Your task to perform on an android device: Open Wikipedia Image 0: 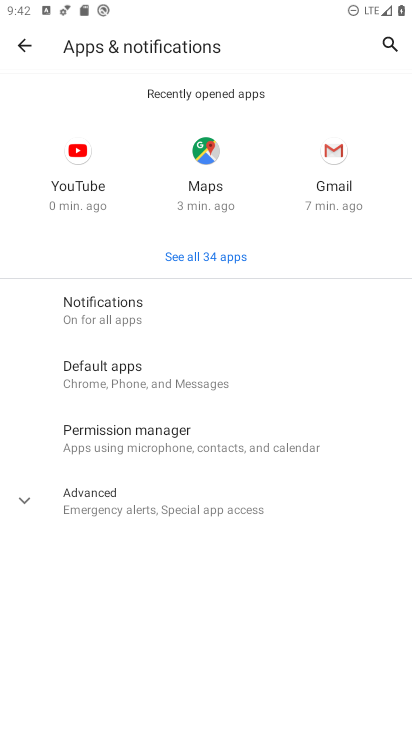
Step 0: press home button
Your task to perform on an android device: Open Wikipedia Image 1: 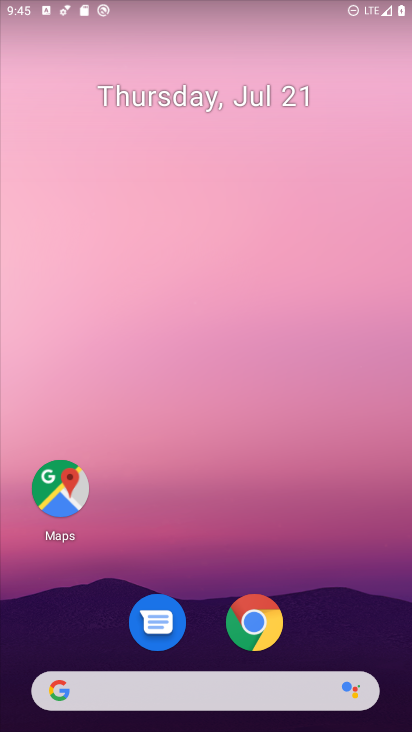
Step 1: click (123, 674)
Your task to perform on an android device: Open Wikipedia Image 2: 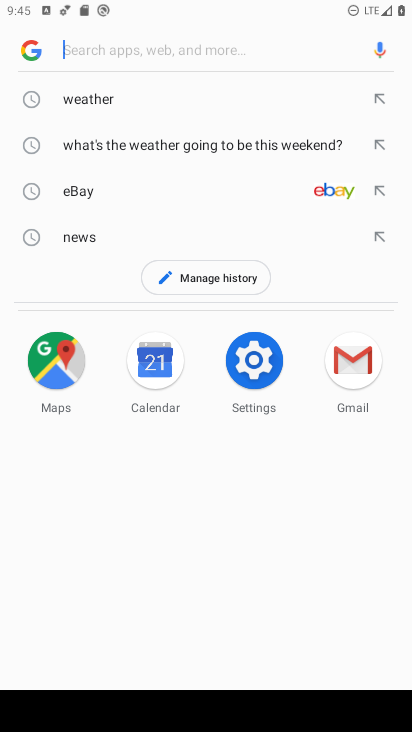
Step 2: type "wikipedia"
Your task to perform on an android device: Open Wikipedia Image 3: 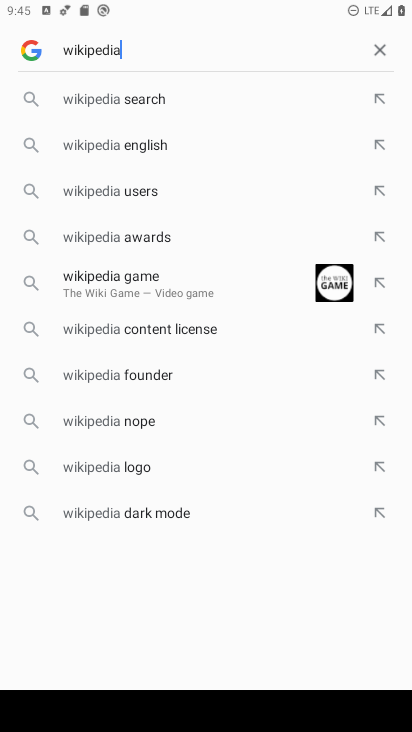
Step 3: press enter
Your task to perform on an android device: Open Wikipedia Image 4: 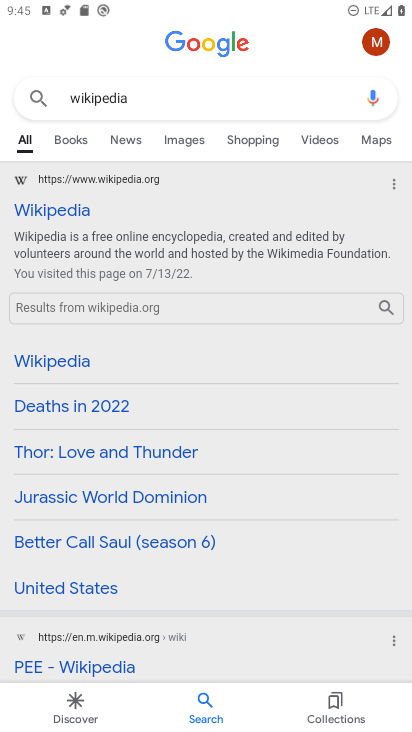
Step 4: click (82, 182)
Your task to perform on an android device: Open Wikipedia Image 5: 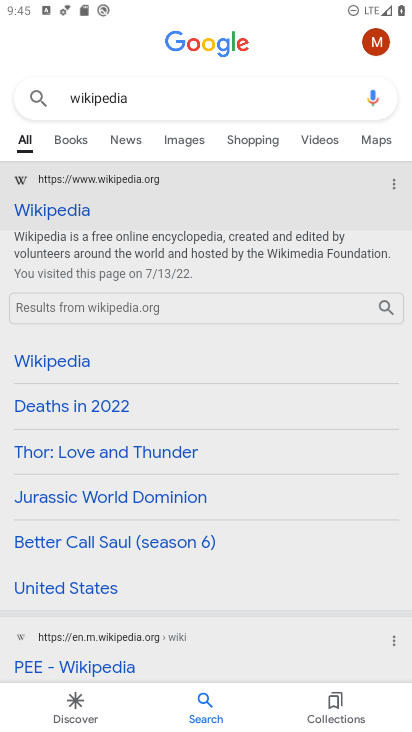
Step 5: click (70, 215)
Your task to perform on an android device: Open Wikipedia Image 6: 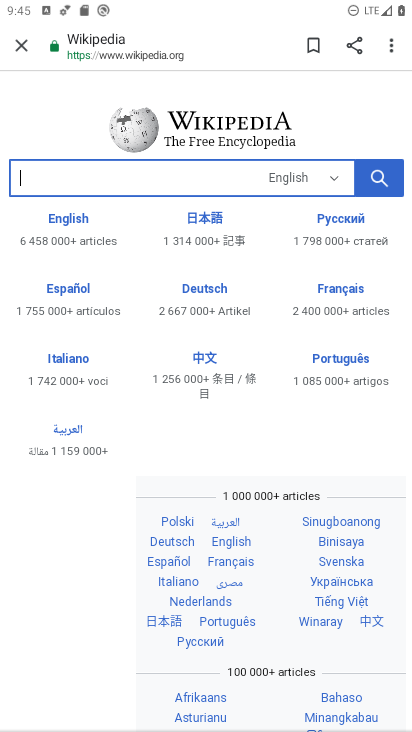
Step 6: task complete